Your task to perform on an android device: Go to accessibility settings Image 0: 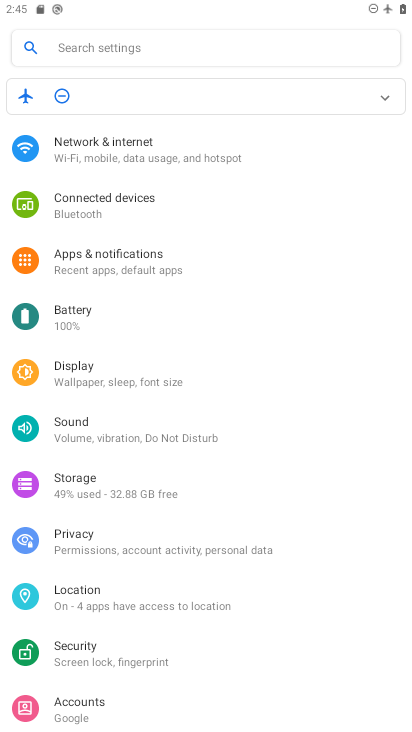
Step 0: drag from (140, 547) to (136, 215)
Your task to perform on an android device: Go to accessibility settings Image 1: 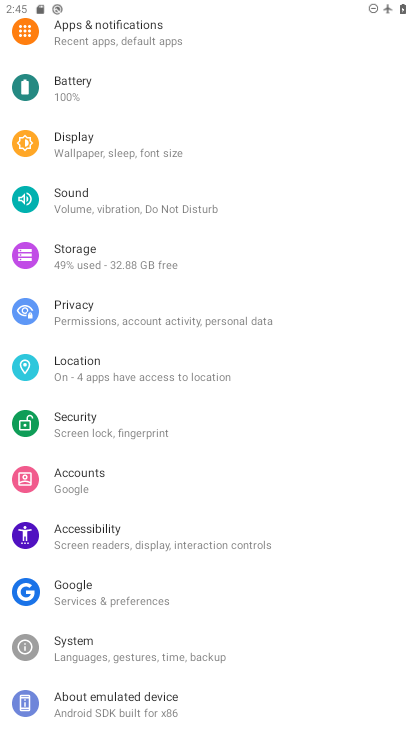
Step 1: click (102, 526)
Your task to perform on an android device: Go to accessibility settings Image 2: 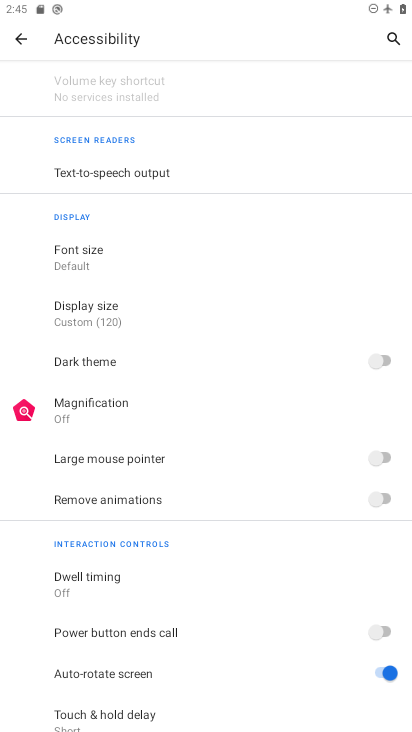
Step 2: task complete